Your task to perform on an android device: open device folders in google photos Image 0: 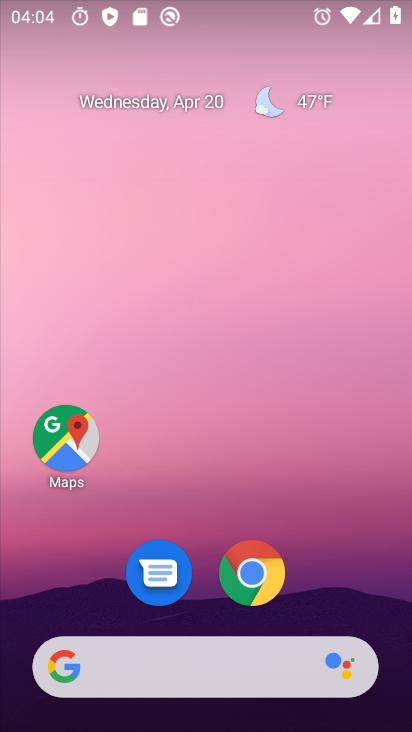
Step 0: drag from (184, 721) to (178, 180)
Your task to perform on an android device: open device folders in google photos Image 1: 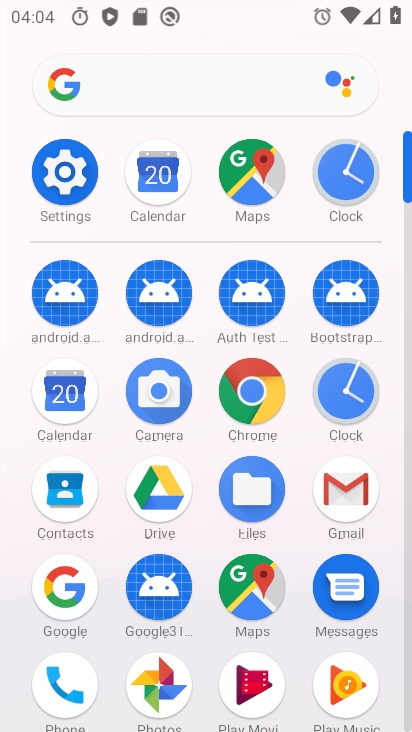
Step 1: click (156, 681)
Your task to perform on an android device: open device folders in google photos Image 2: 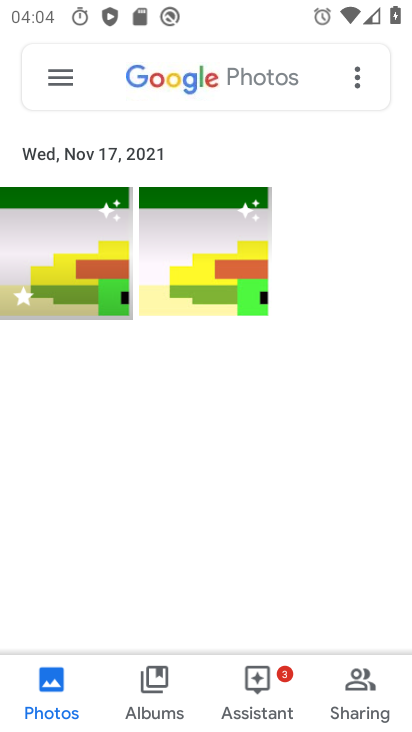
Step 2: click (60, 75)
Your task to perform on an android device: open device folders in google photos Image 3: 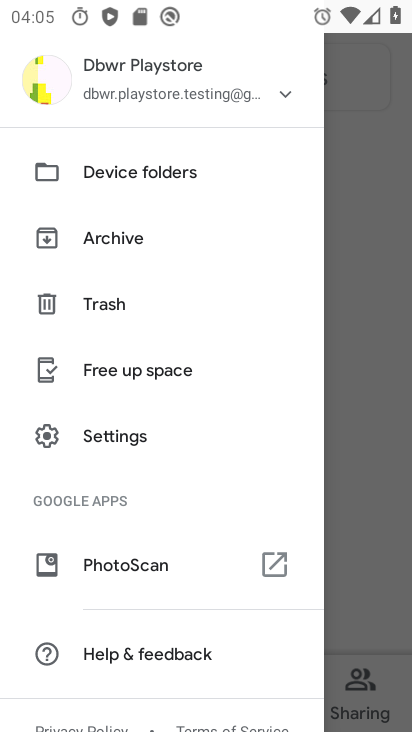
Step 3: click (115, 169)
Your task to perform on an android device: open device folders in google photos Image 4: 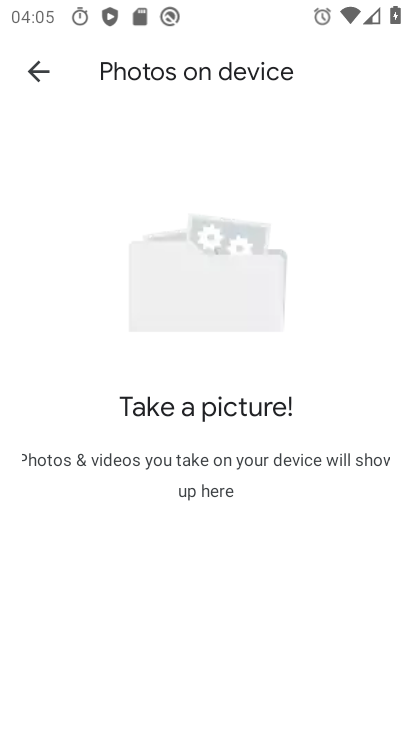
Step 4: task complete